Your task to perform on an android device: toggle wifi Image 0: 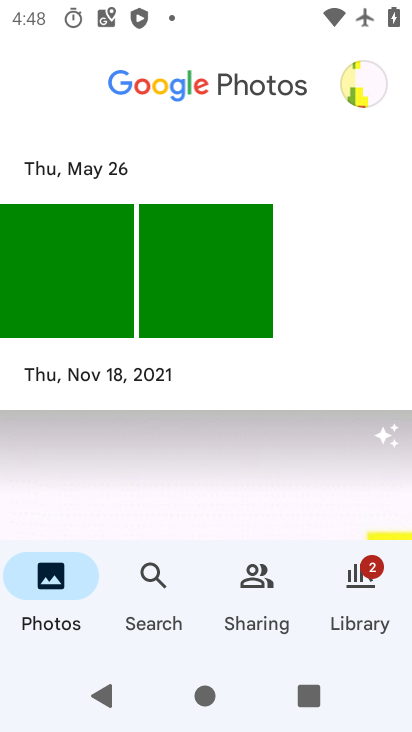
Step 0: press home button
Your task to perform on an android device: toggle wifi Image 1: 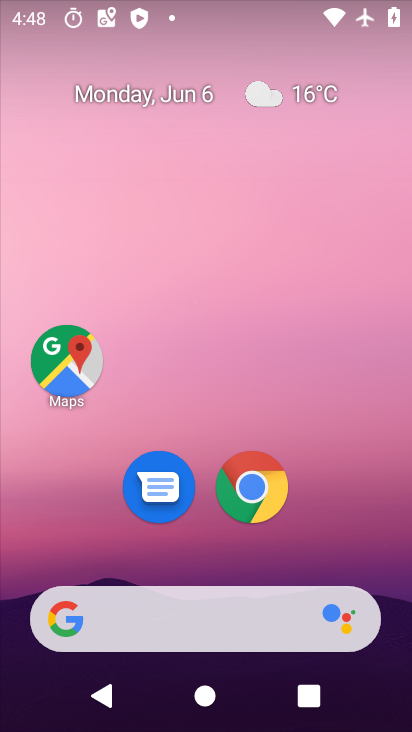
Step 1: drag from (357, 502) to (331, 17)
Your task to perform on an android device: toggle wifi Image 2: 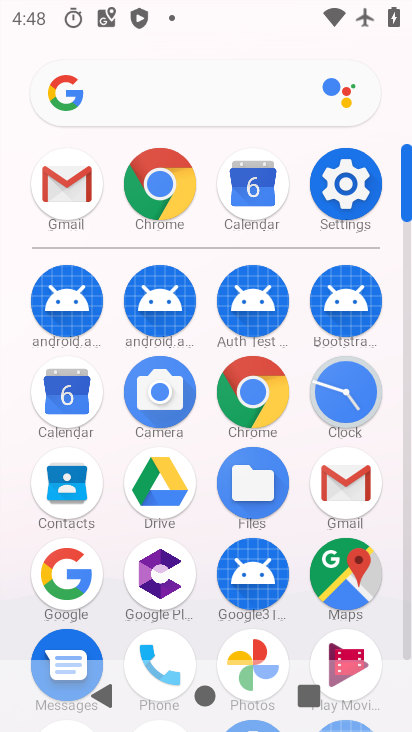
Step 2: click (353, 170)
Your task to perform on an android device: toggle wifi Image 3: 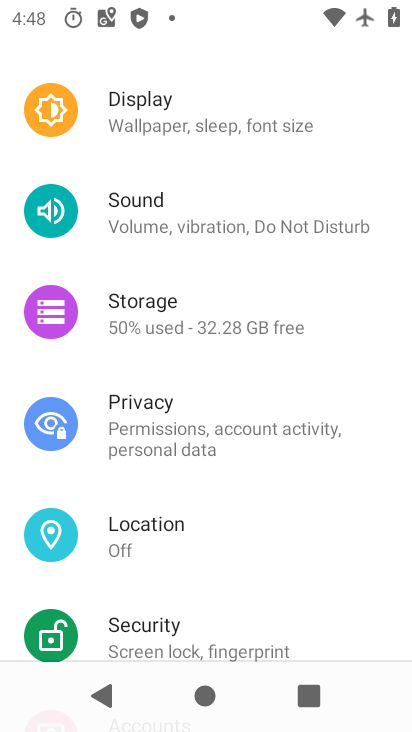
Step 3: drag from (186, 138) to (139, 638)
Your task to perform on an android device: toggle wifi Image 4: 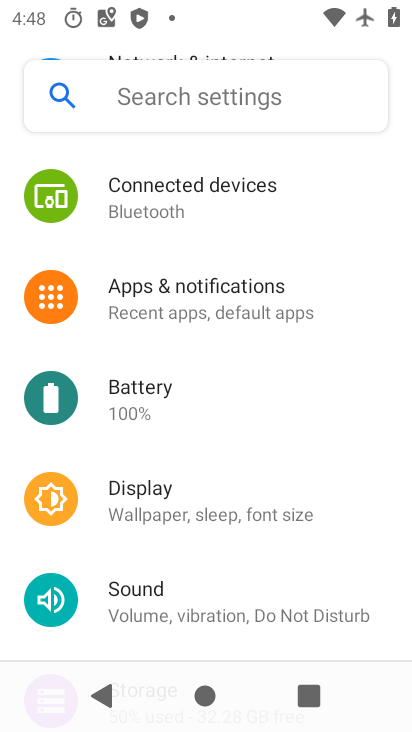
Step 4: drag from (174, 212) to (165, 623)
Your task to perform on an android device: toggle wifi Image 5: 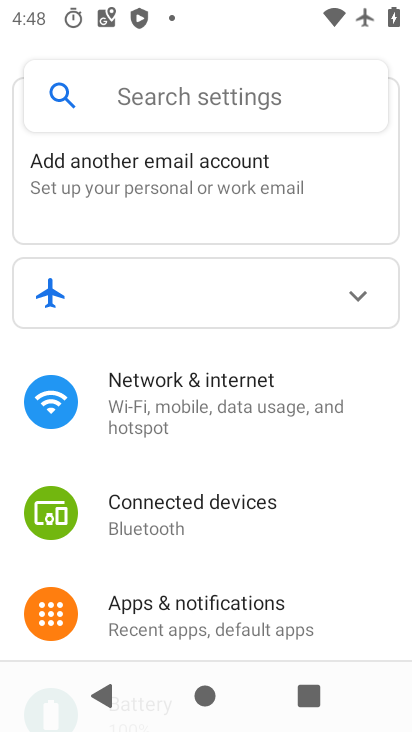
Step 5: click (157, 384)
Your task to perform on an android device: toggle wifi Image 6: 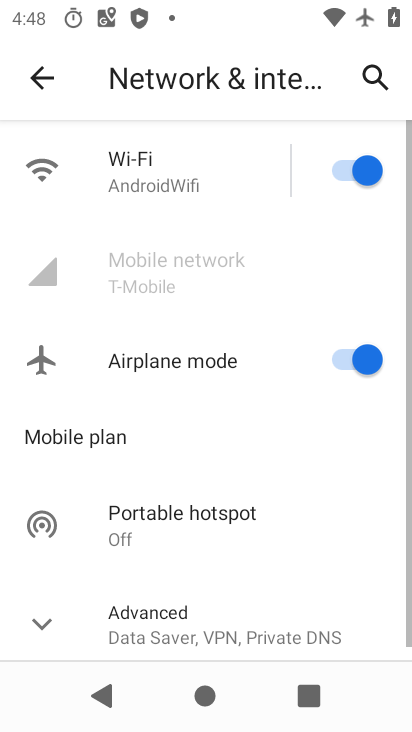
Step 6: click (350, 167)
Your task to perform on an android device: toggle wifi Image 7: 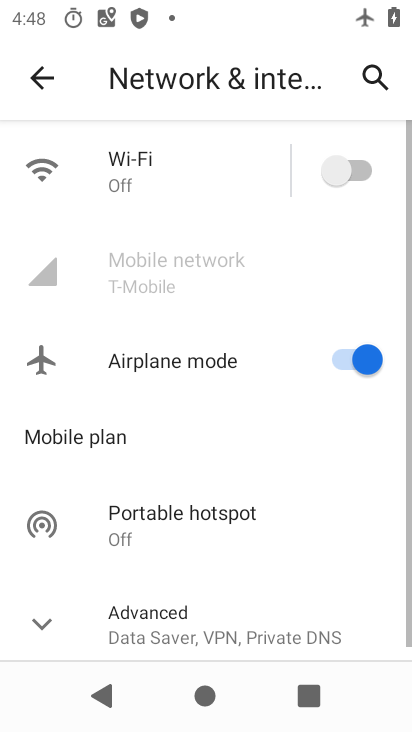
Step 7: task complete